Your task to perform on an android device: toggle data saver in the chrome app Image 0: 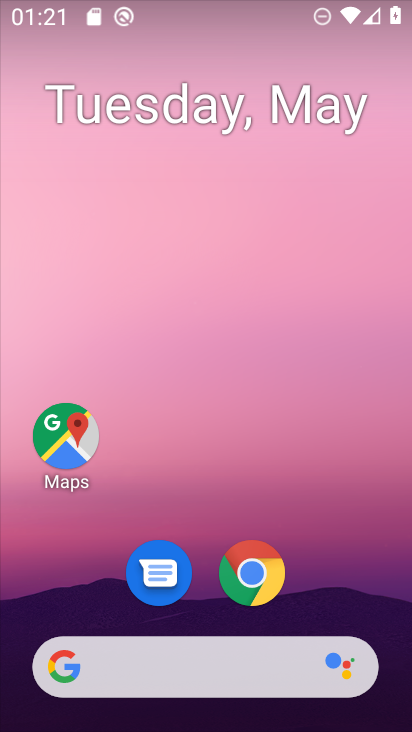
Step 0: click (260, 578)
Your task to perform on an android device: toggle data saver in the chrome app Image 1: 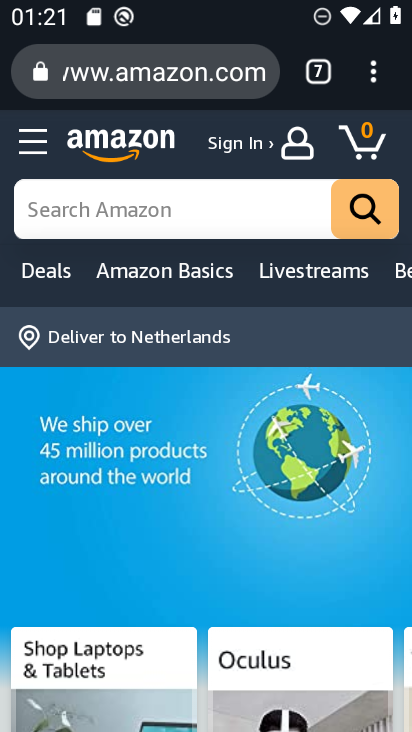
Step 1: click (368, 67)
Your task to perform on an android device: toggle data saver in the chrome app Image 2: 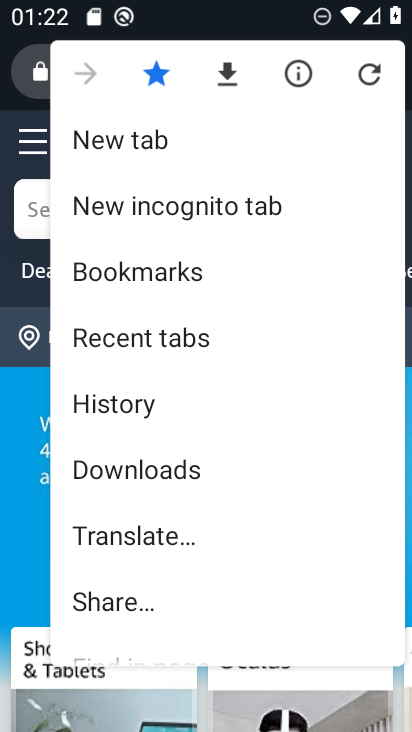
Step 2: drag from (236, 553) to (240, 193)
Your task to perform on an android device: toggle data saver in the chrome app Image 3: 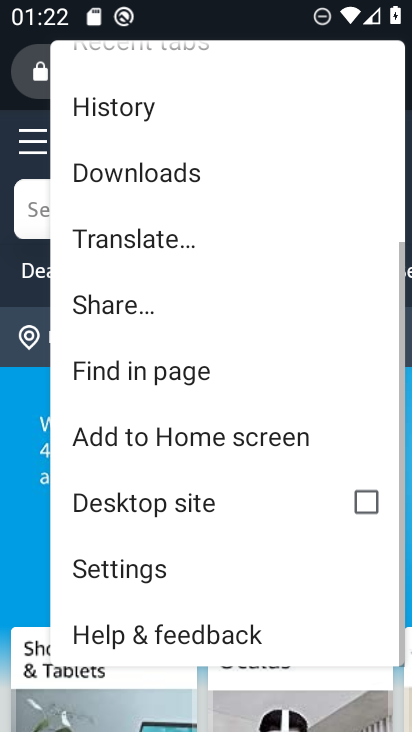
Step 3: click (184, 563)
Your task to perform on an android device: toggle data saver in the chrome app Image 4: 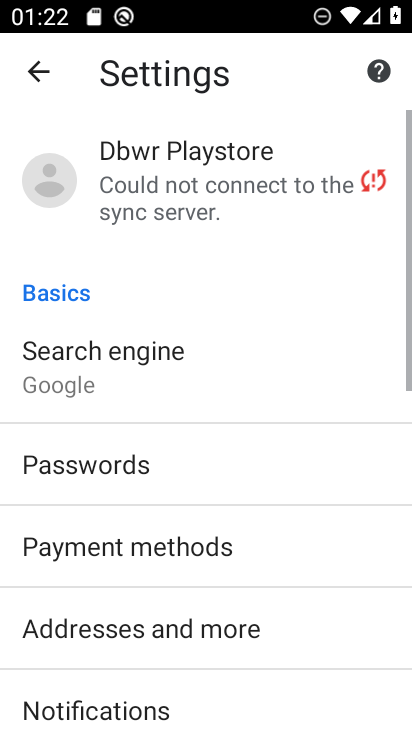
Step 4: drag from (223, 583) to (234, 169)
Your task to perform on an android device: toggle data saver in the chrome app Image 5: 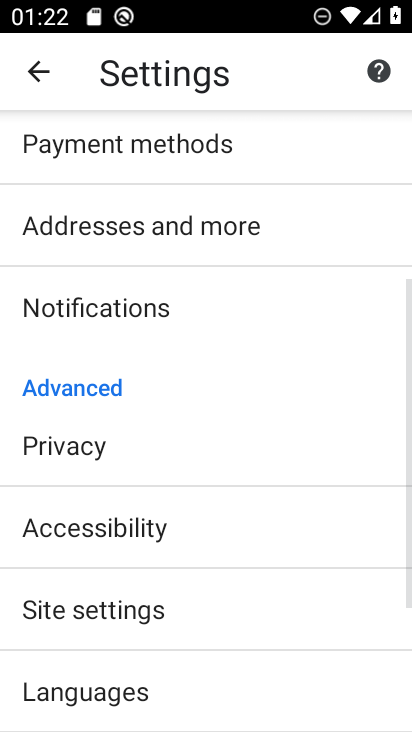
Step 5: drag from (195, 570) to (182, 265)
Your task to perform on an android device: toggle data saver in the chrome app Image 6: 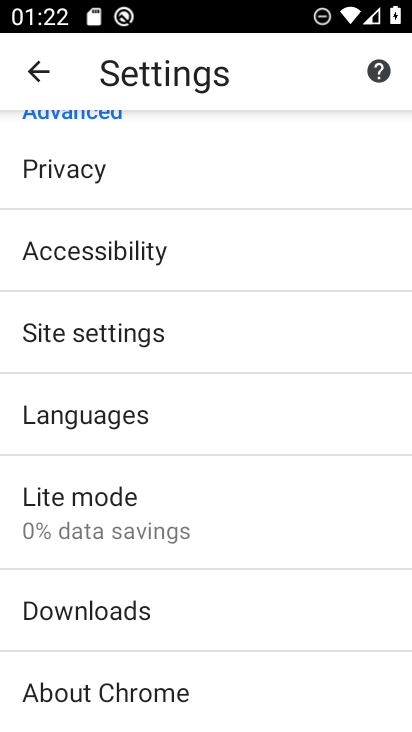
Step 6: click (171, 518)
Your task to perform on an android device: toggle data saver in the chrome app Image 7: 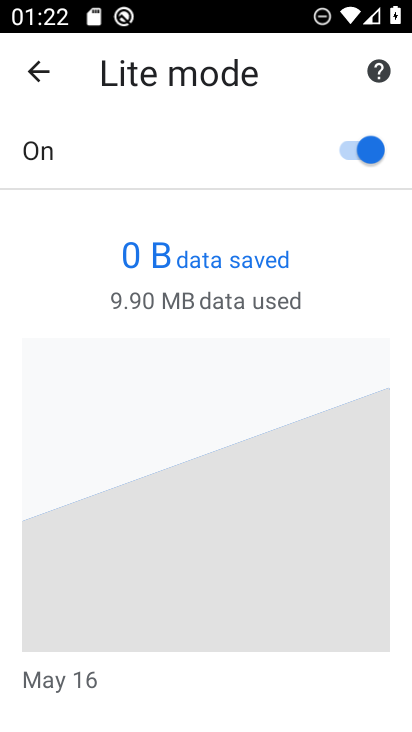
Step 7: click (366, 143)
Your task to perform on an android device: toggle data saver in the chrome app Image 8: 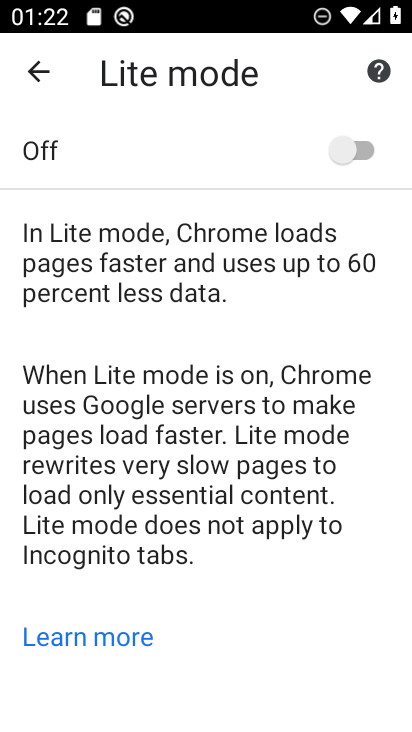
Step 8: task complete